Your task to perform on an android device: When is my next appointment? Image 0: 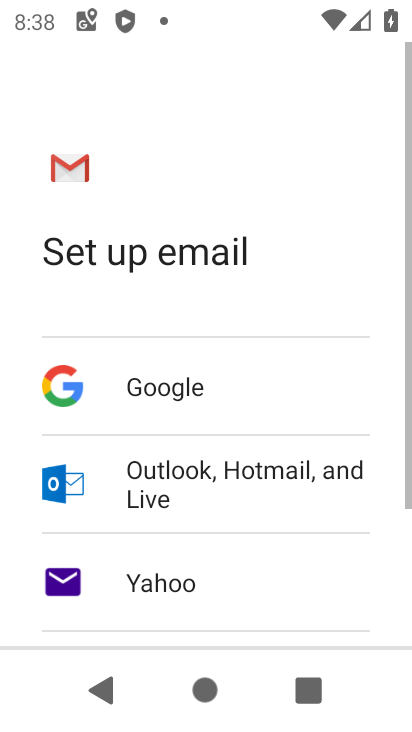
Step 0: press home button
Your task to perform on an android device: When is my next appointment? Image 1: 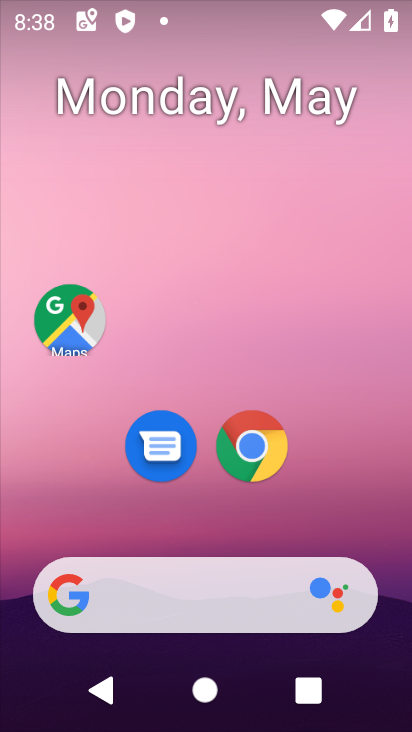
Step 1: drag from (215, 519) to (238, 53)
Your task to perform on an android device: When is my next appointment? Image 2: 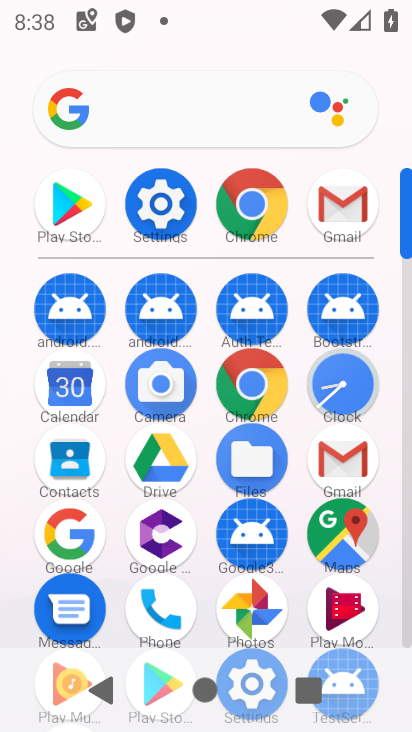
Step 2: click (69, 384)
Your task to perform on an android device: When is my next appointment? Image 3: 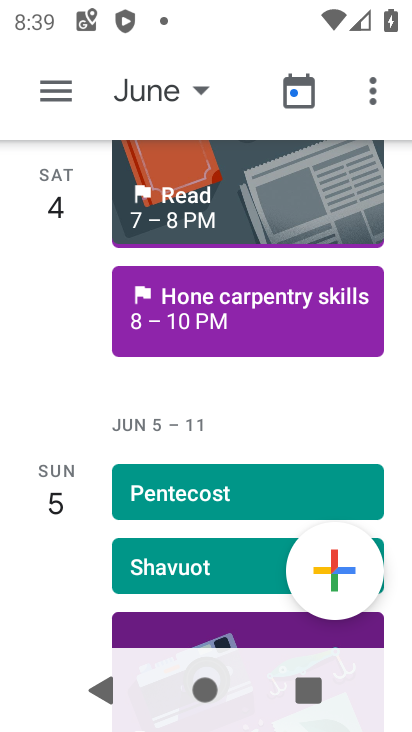
Step 3: task complete